Your task to perform on an android device: turn off notifications in google photos Image 0: 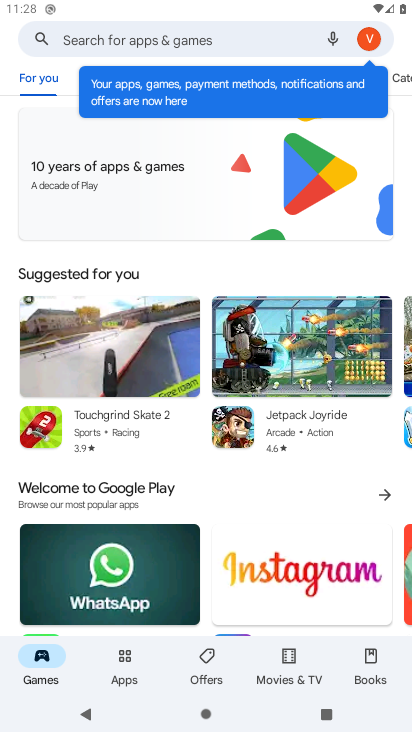
Step 0: press home button
Your task to perform on an android device: turn off notifications in google photos Image 1: 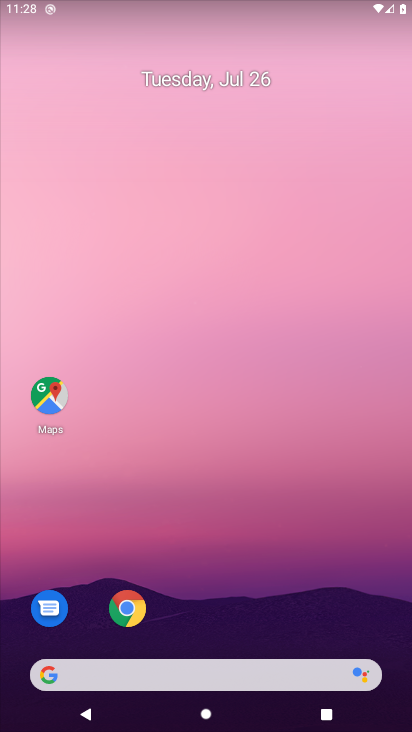
Step 1: drag from (296, 622) to (303, 130)
Your task to perform on an android device: turn off notifications in google photos Image 2: 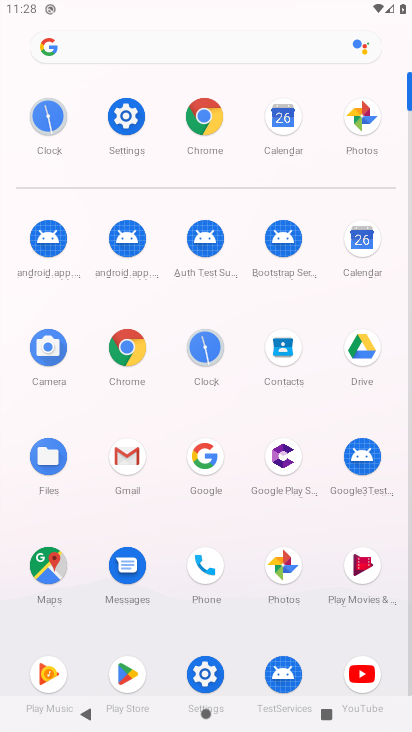
Step 2: click (290, 557)
Your task to perform on an android device: turn off notifications in google photos Image 3: 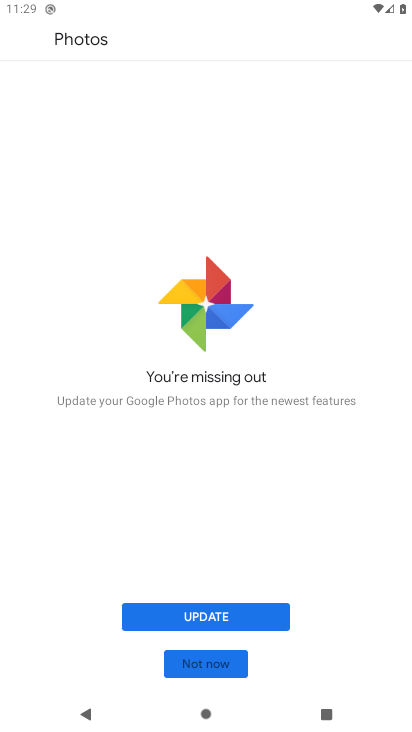
Step 3: click (235, 623)
Your task to perform on an android device: turn off notifications in google photos Image 4: 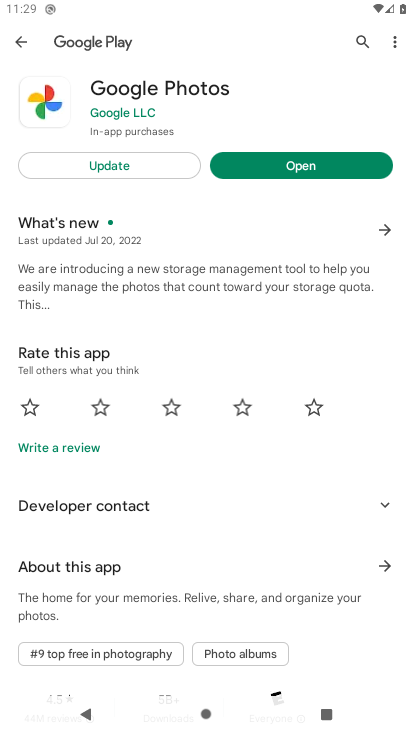
Step 4: click (133, 158)
Your task to perform on an android device: turn off notifications in google photos Image 5: 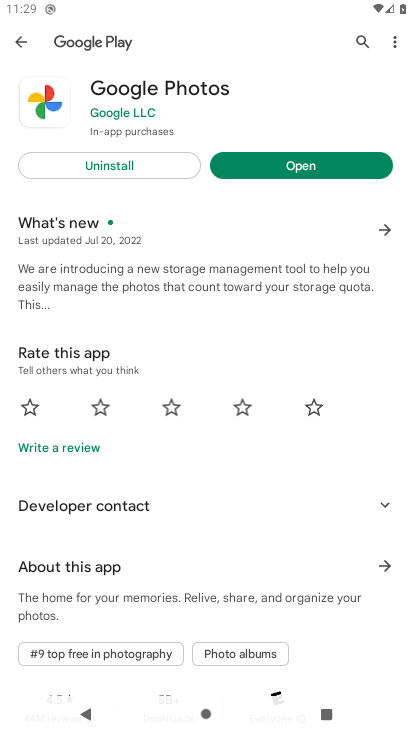
Step 5: click (322, 168)
Your task to perform on an android device: turn off notifications in google photos Image 6: 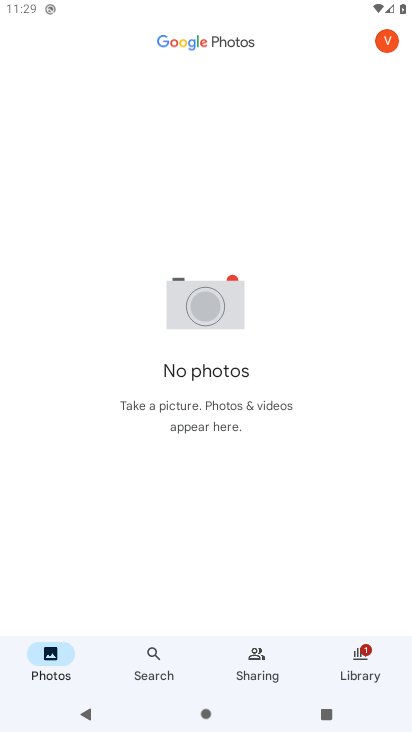
Step 6: click (386, 36)
Your task to perform on an android device: turn off notifications in google photos Image 7: 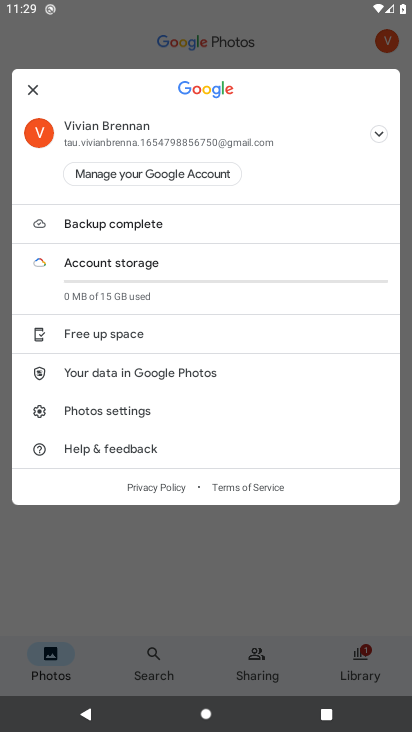
Step 7: click (105, 410)
Your task to perform on an android device: turn off notifications in google photos Image 8: 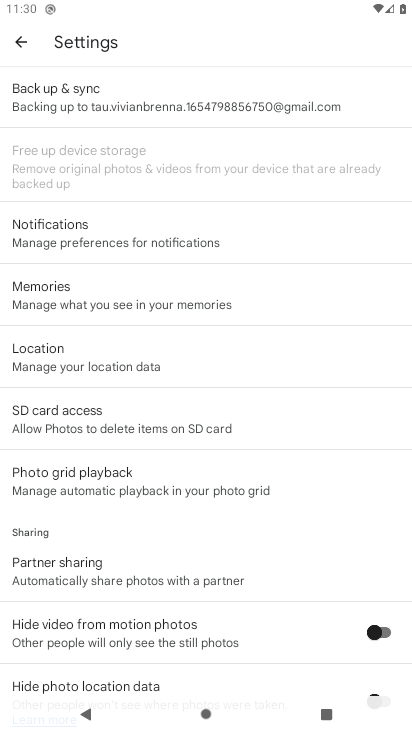
Step 8: click (102, 221)
Your task to perform on an android device: turn off notifications in google photos Image 9: 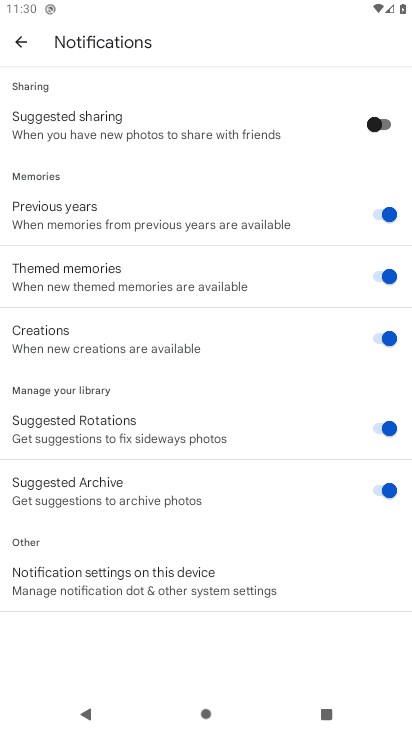
Step 9: click (126, 594)
Your task to perform on an android device: turn off notifications in google photos Image 10: 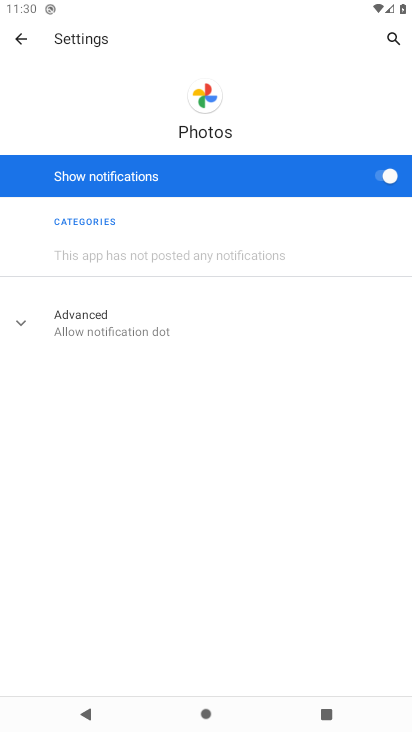
Step 10: click (391, 175)
Your task to perform on an android device: turn off notifications in google photos Image 11: 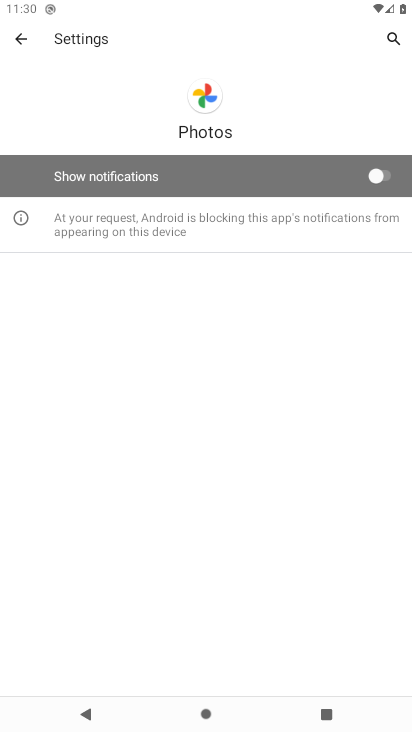
Step 11: task complete